Your task to perform on an android device: Toggle the flashlight Image 0: 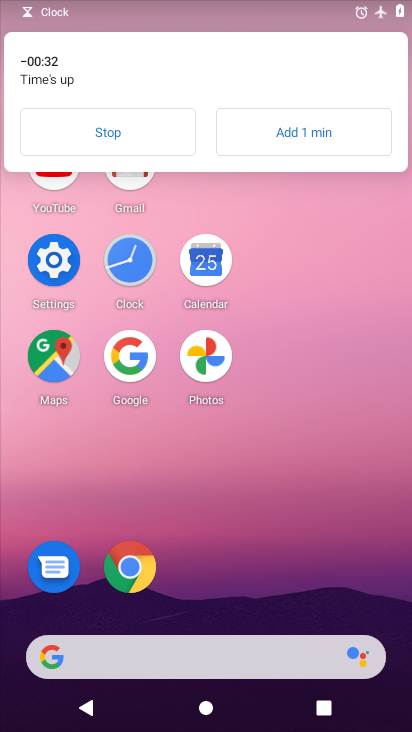
Step 0: drag from (267, 49) to (282, 317)
Your task to perform on an android device: Toggle the flashlight Image 1: 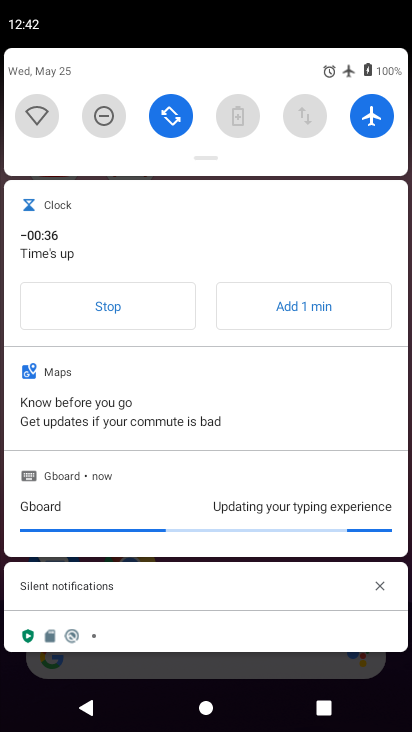
Step 1: task complete